Your task to perform on an android device: check google app version Image 0: 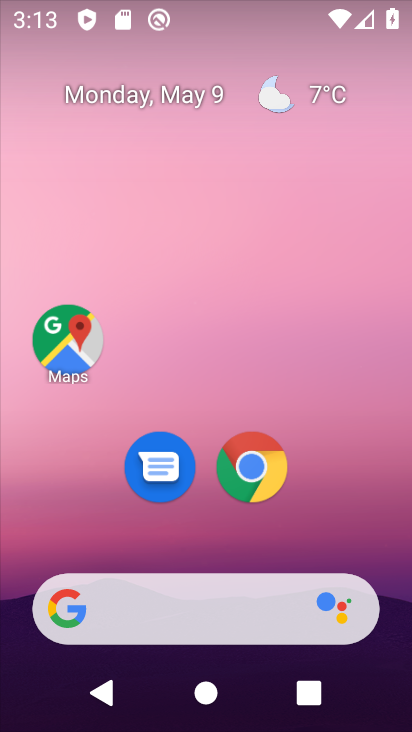
Step 0: drag from (311, 481) to (347, 136)
Your task to perform on an android device: check google app version Image 1: 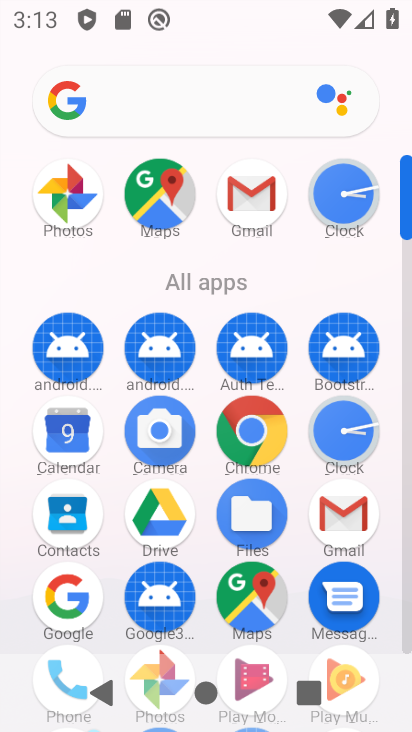
Step 1: drag from (285, 572) to (308, 345)
Your task to perform on an android device: check google app version Image 2: 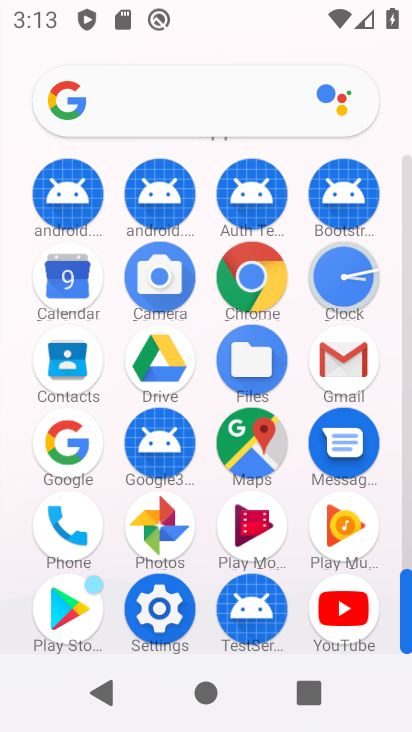
Step 2: click (78, 454)
Your task to perform on an android device: check google app version Image 3: 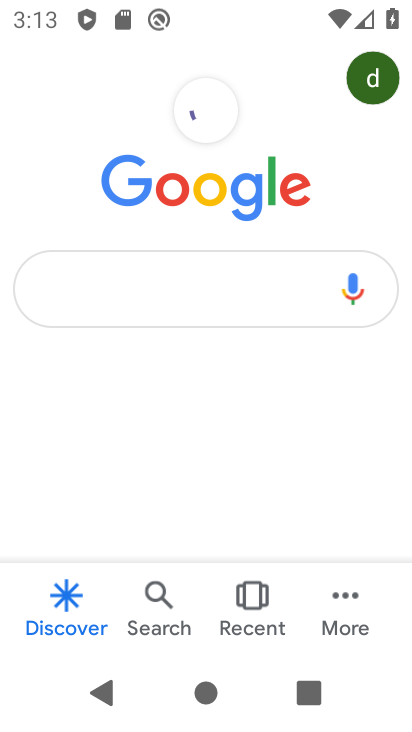
Step 3: click (346, 598)
Your task to perform on an android device: check google app version Image 4: 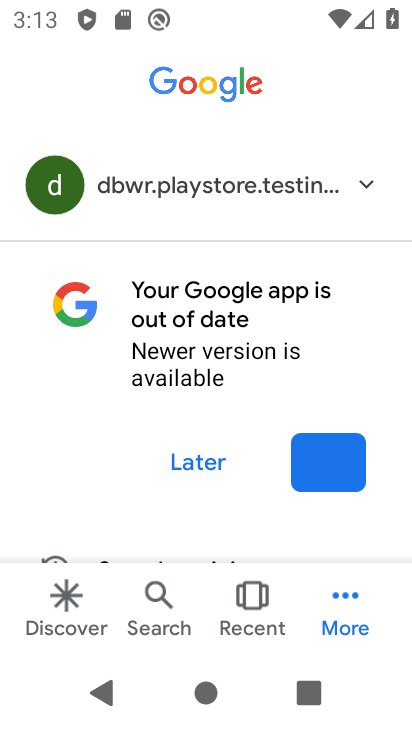
Step 4: click (346, 594)
Your task to perform on an android device: check google app version Image 5: 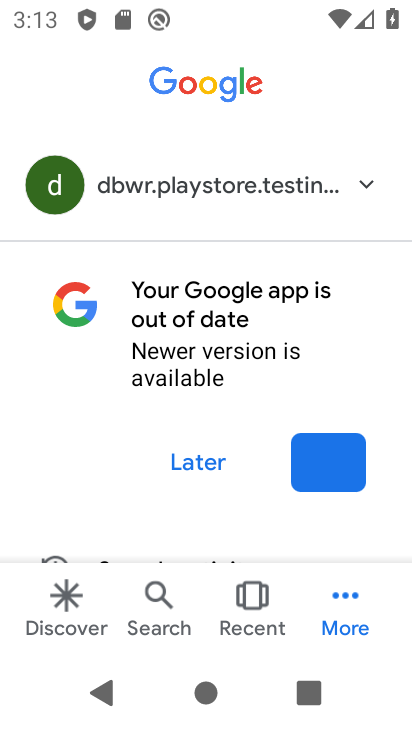
Step 5: click (349, 605)
Your task to perform on an android device: check google app version Image 6: 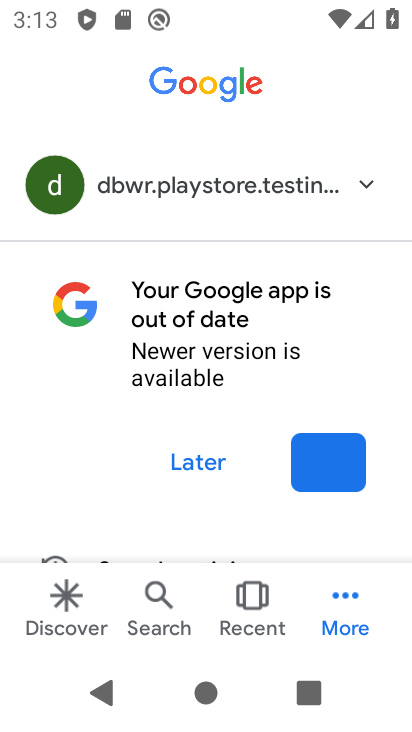
Step 6: click (343, 596)
Your task to perform on an android device: check google app version Image 7: 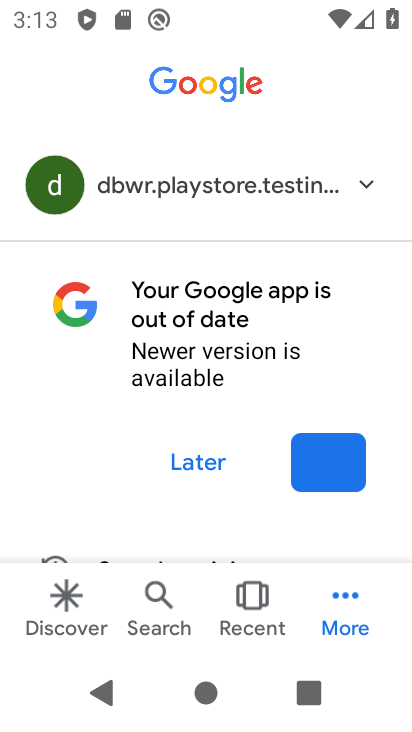
Step 7: click (209, 463)
Your task to perform on an android device: check google app version Image 8: 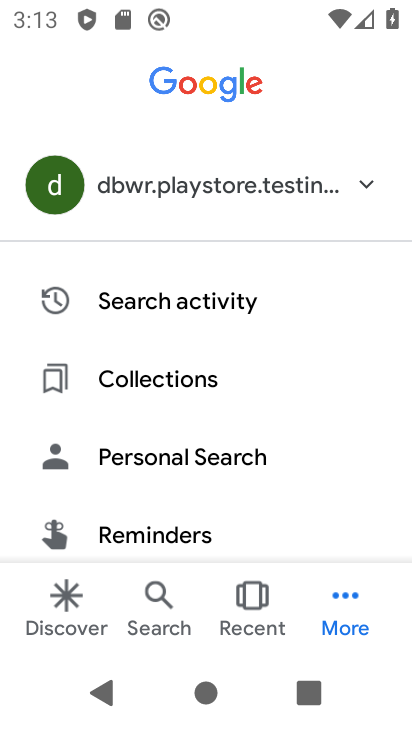
Step 8: click (348, 620)
Your task to perform on an android device: check google app version Image 9: 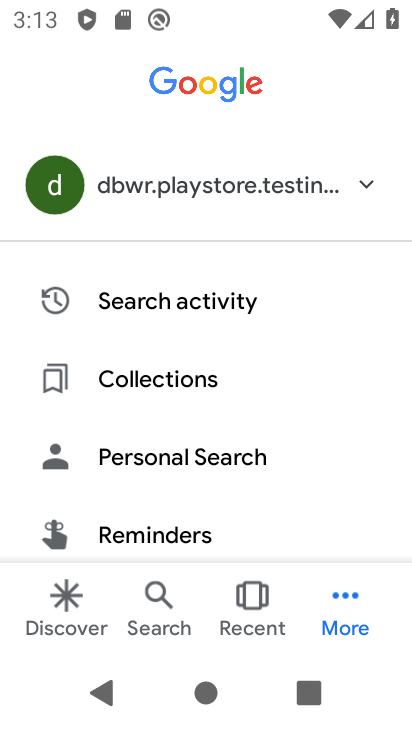
Step 9: drag from (341, 512) to (347, 204)
Your task to perform on an android device: check google app version Image 10: 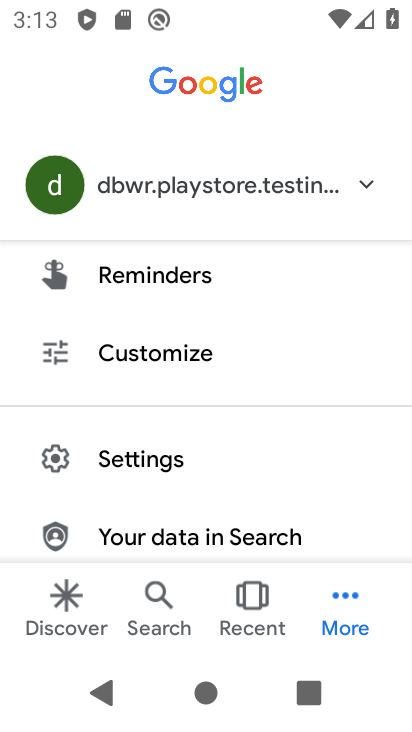
Step 10: click (146, 453)
Your task to perform on an android device: check google app version Image 11: 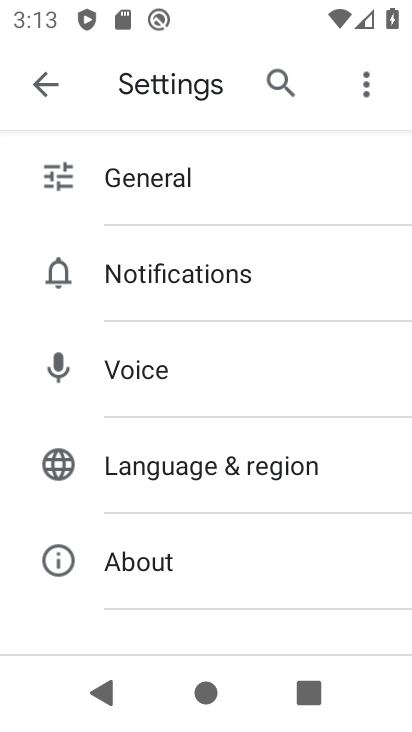
Step 11: click (164, 551)
Your task to perform on an android device: check google app version Image 12: 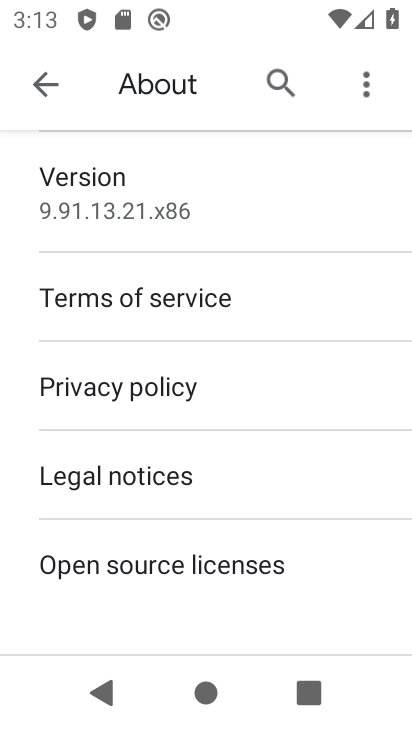
Step 12: task complete